Your task to perform on an android device: Open sound settings Image 0: 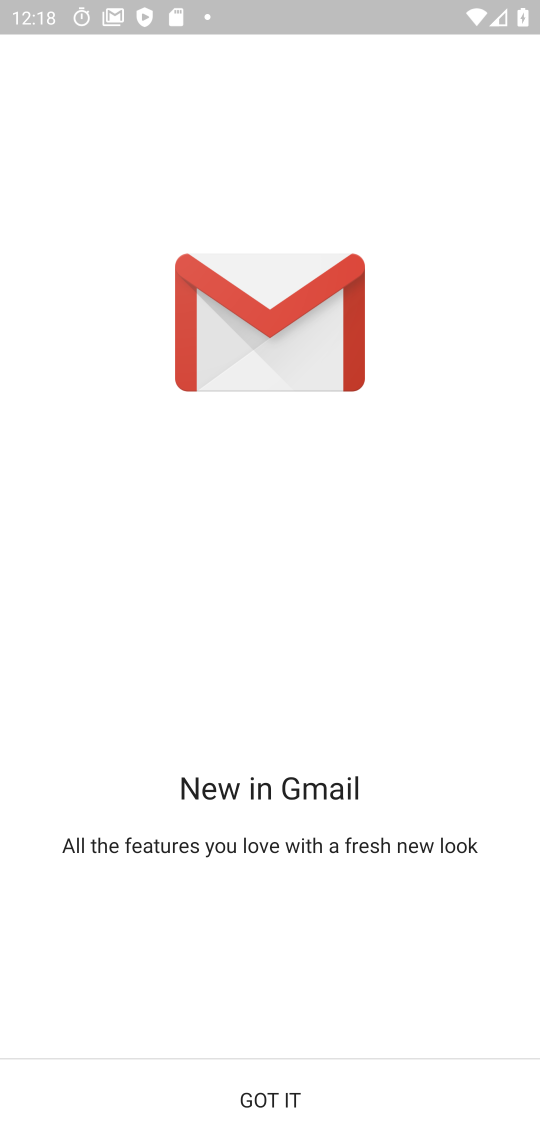
Step 0: press home button
Your task to perform on an android device: Open sound settings Image 1: 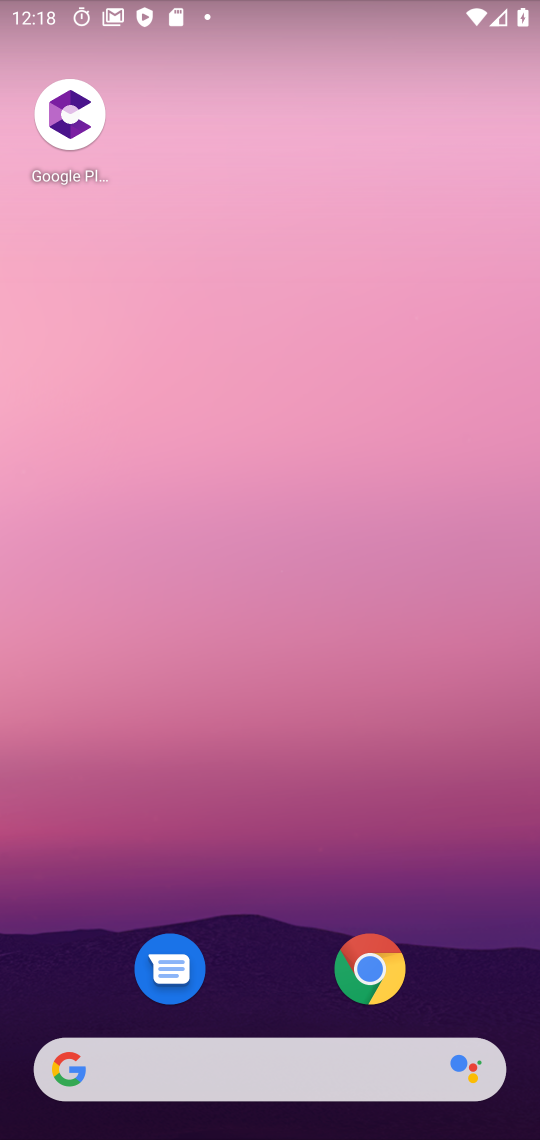
Step 1: drag from (278, 1085) to (252, 119)
Your task to perform on an android device: Open sound settings Image 2: 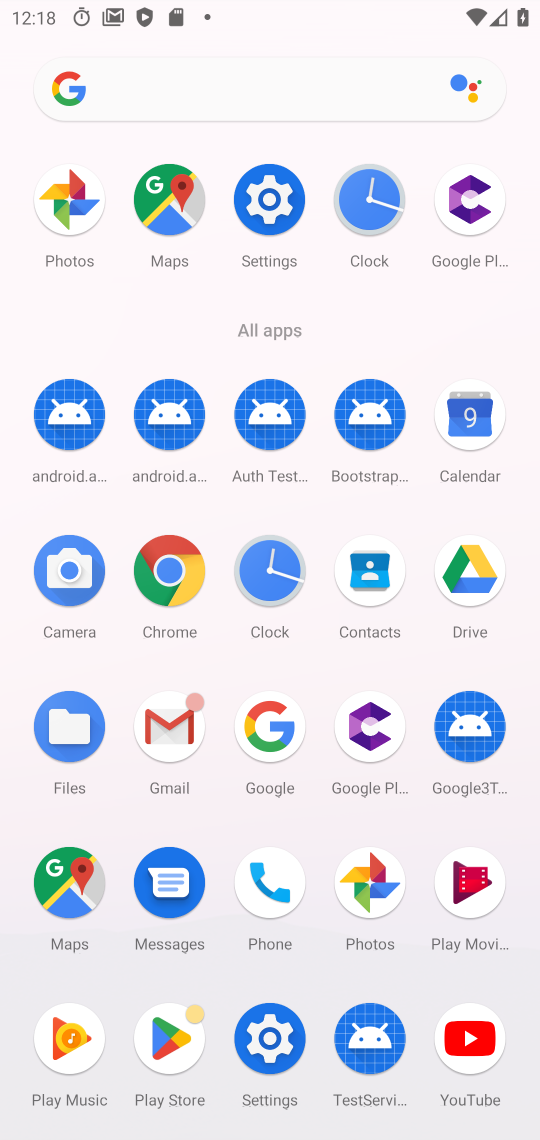
Step 2: click (259, 233)
Your task to perform on an android device: Open sound settings Image 3: 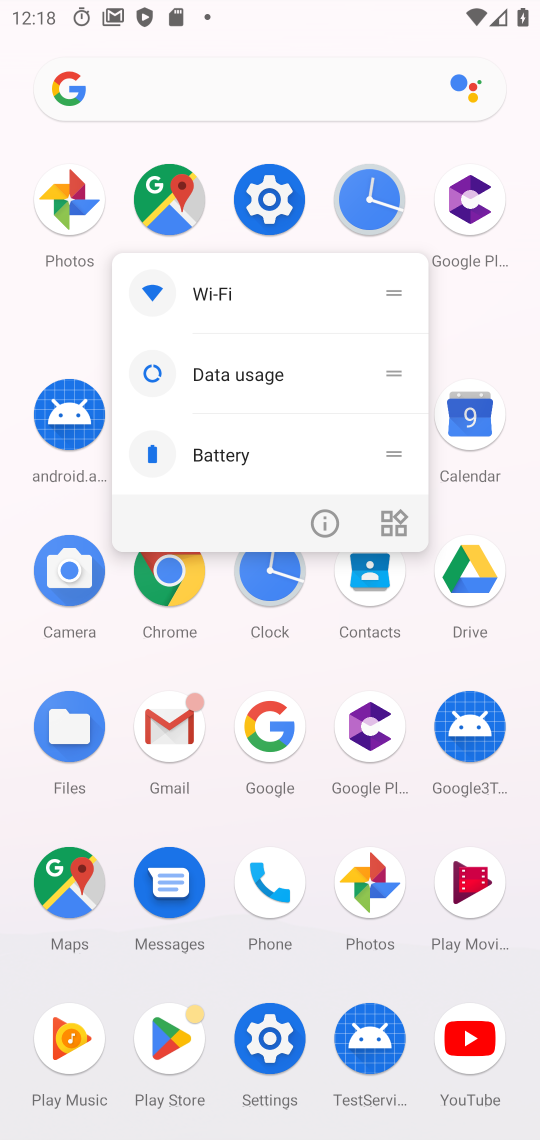
Step 3: click (269, 224)
Your task to perform on an android device: Open sound settings Image 4: 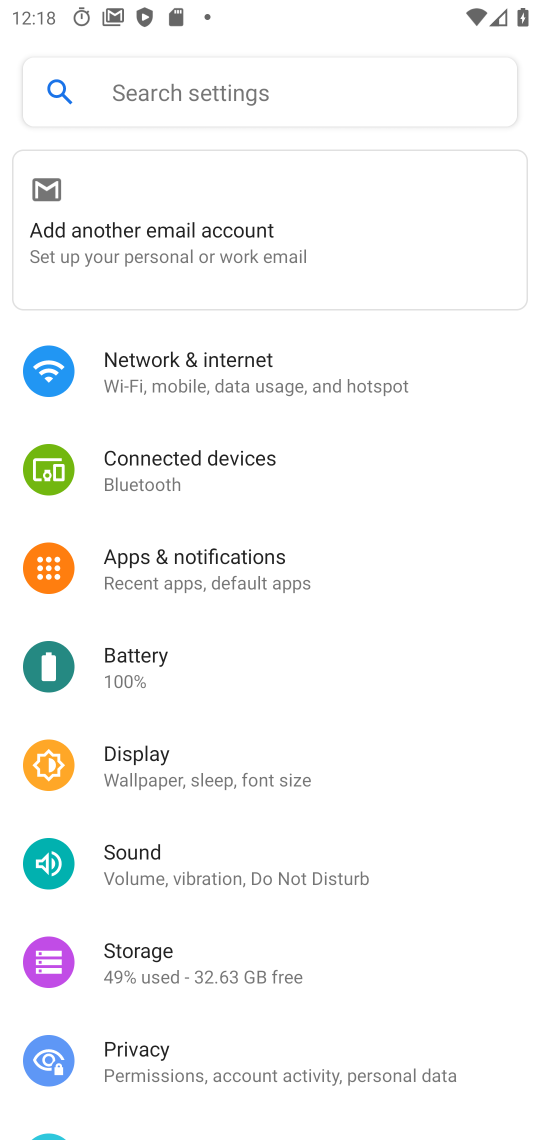
Step 4: click (186, 869)
Your task to perform on an android device: Open sound settings Image 5: 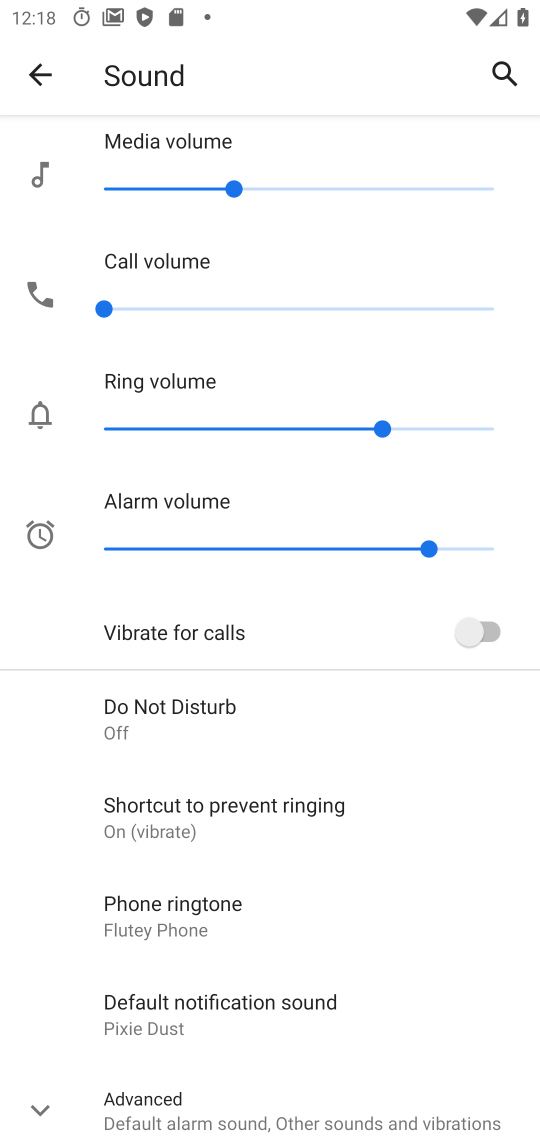
Step 5: task complete